Your task to perform on an android device: Do I have any events this weekend? Image 0: 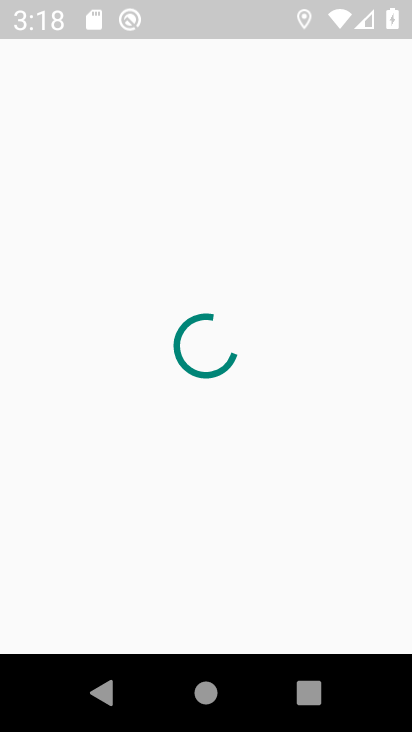
Step 0: click (375, 446)
Your task to perform on an android device: Do I have any events this weekend? Image 1: 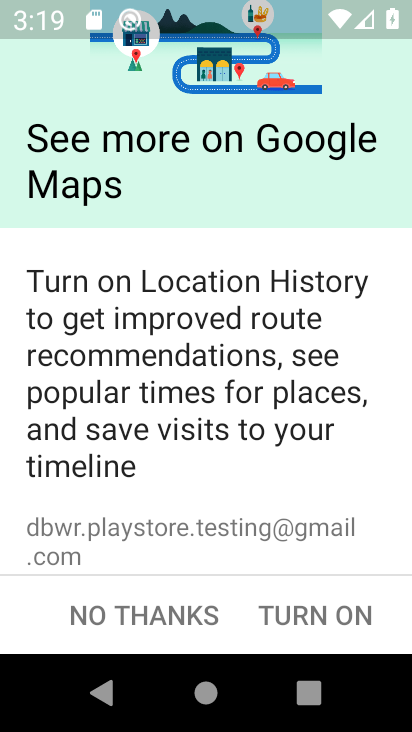
Step 1: press home button
Your task to perform on an android device: Do I have any events this weekend? Image 2: 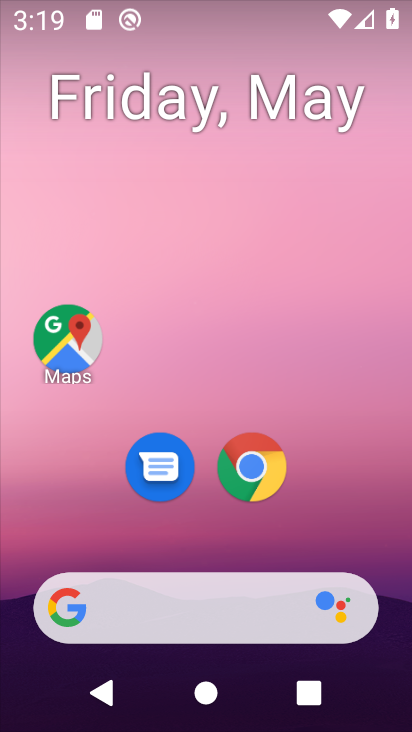
Step 2: drag from (284, 539) to (221, 67)
Your task to perform on an android device: Do I have any events this weekend? Image 3: 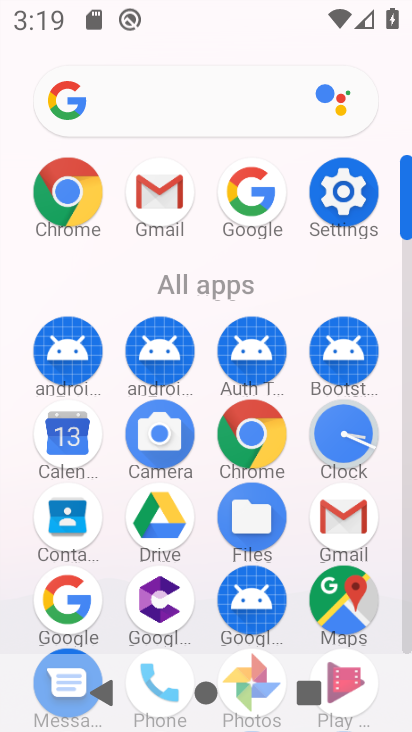
Step 3: click (67, 447)
Your task to perform on an android device: Do I have any events this weekend? Image 4: 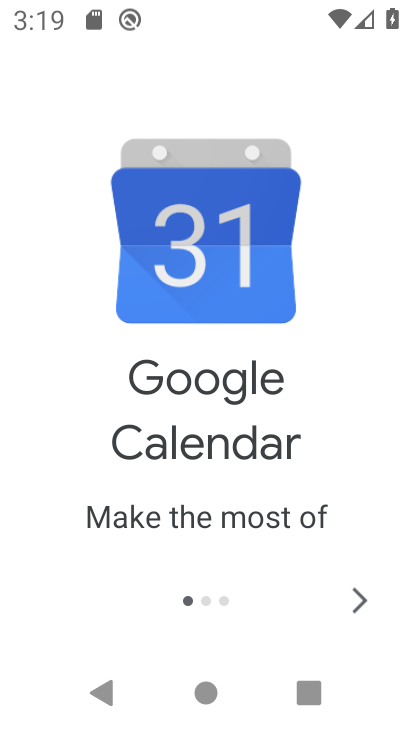
Step 4: click (348, 597)
Your task to perform on an android device: Do I have any events this weekend? Image 5: 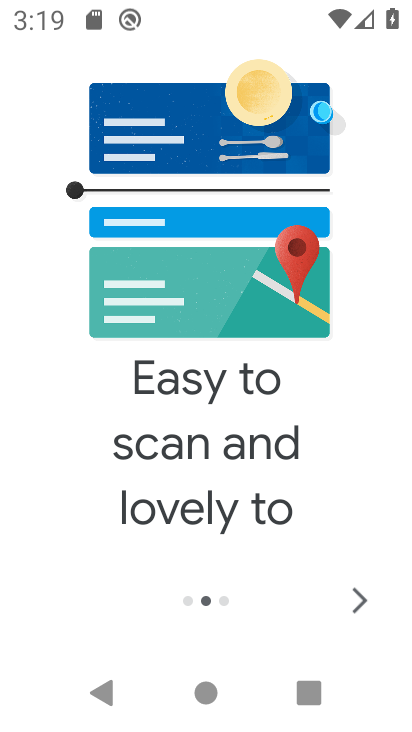
Step 5: click (356, 588)
Your task to perform on an android device: Do I have any events this weekend? Image 6: 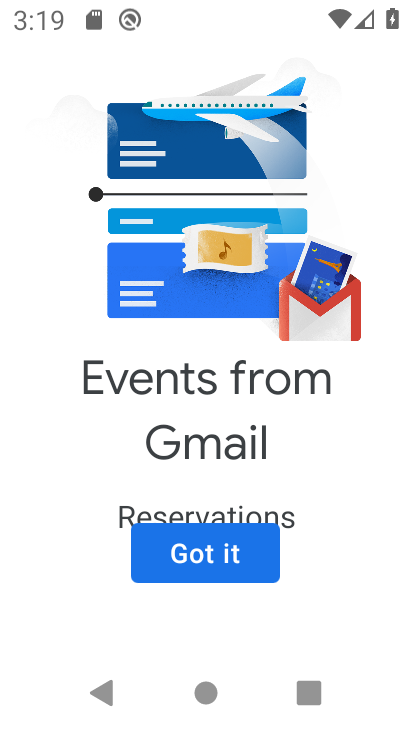
Step 6: click (221, 570)
Your task to perform on an android device: Do I have any events this weekend? Image 7: 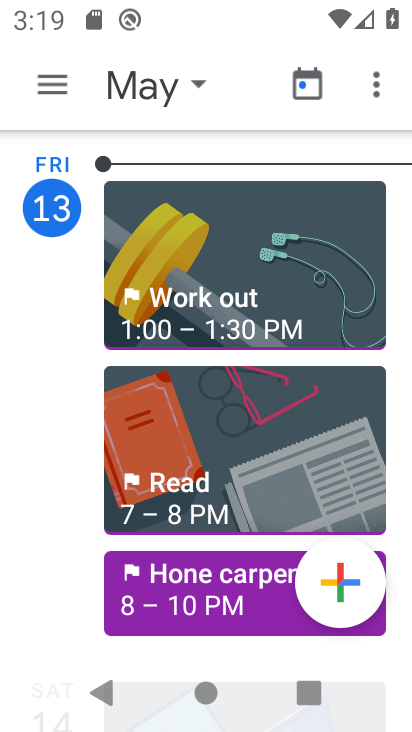
Step 7: click (49, 87)
Your task to perform on an android device: Do I have any events this weekend? Image 8: 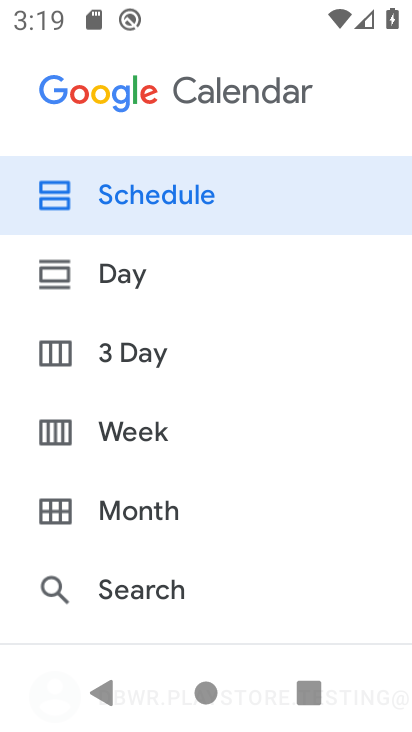
Step 8: click (148, 416)
Your task to perform on an android device: Do I have any events this weekend? Image 9: 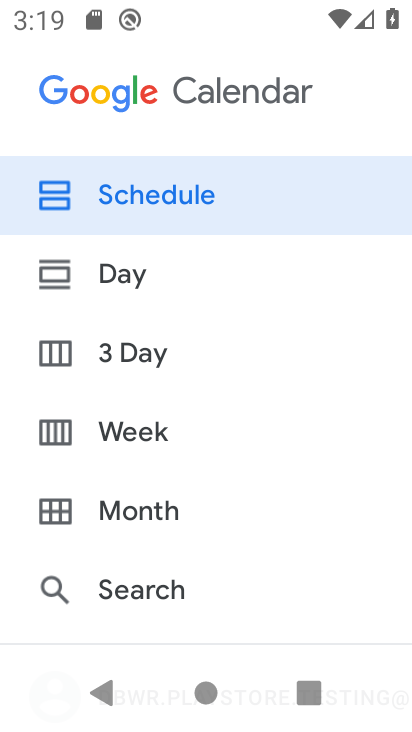
Step 9: click (134, 443)
Your task to perform on an android device: Do I have any events this weekend? Image 10: 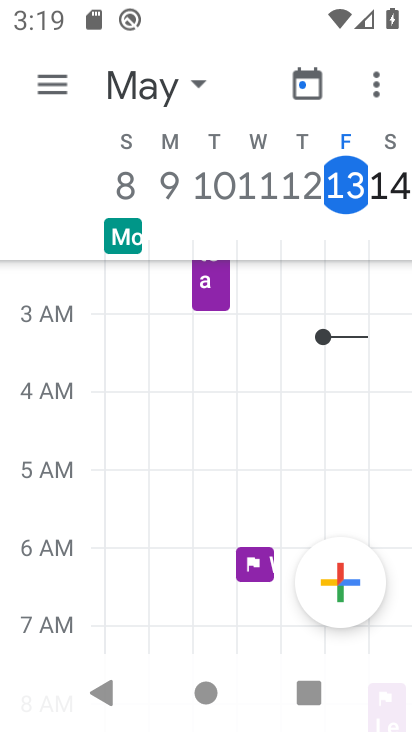
Step 10: task complete